Your task to perform on an android device: Search for vegetarian restaurants on Maps Image 0: 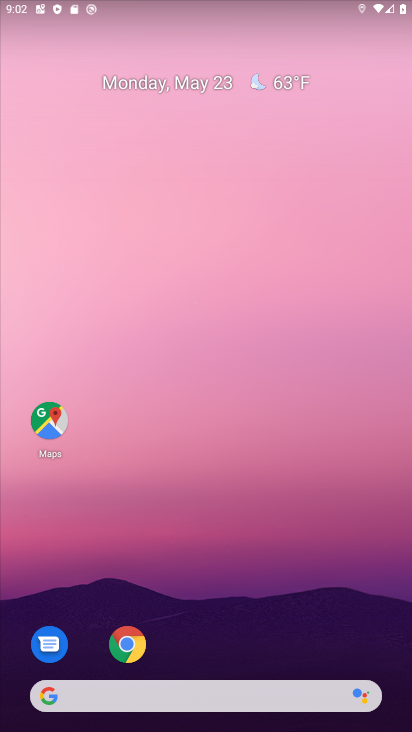
Step 0: click (53, 420)
Your task to perform on an android device: Search for vegetarian restaurants on Maps Image 1: 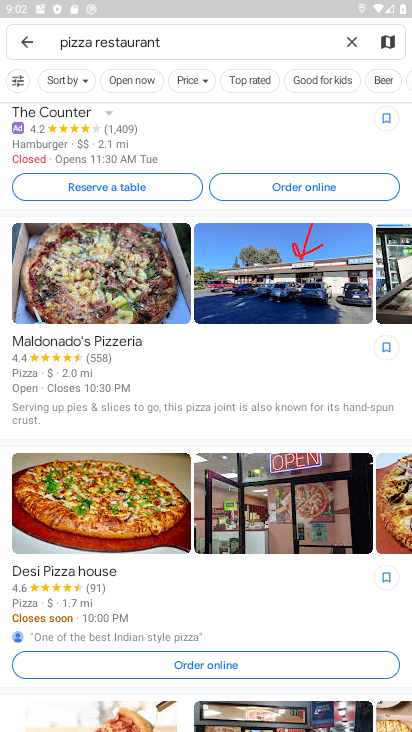
Step 1: click (348, 44)
Your task to perform on an android device: Search for vegetarian restaurants on Maps Image 2: 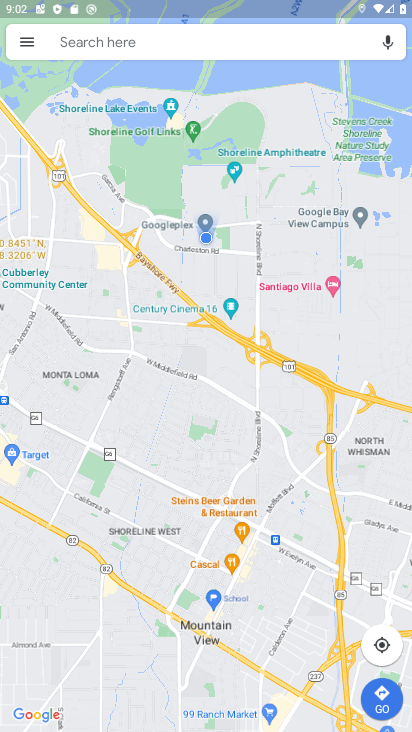
Step 2: click (86, 42)
Your task to perform on an android device: Search for vegetarian restaurants on Maps Image 3: 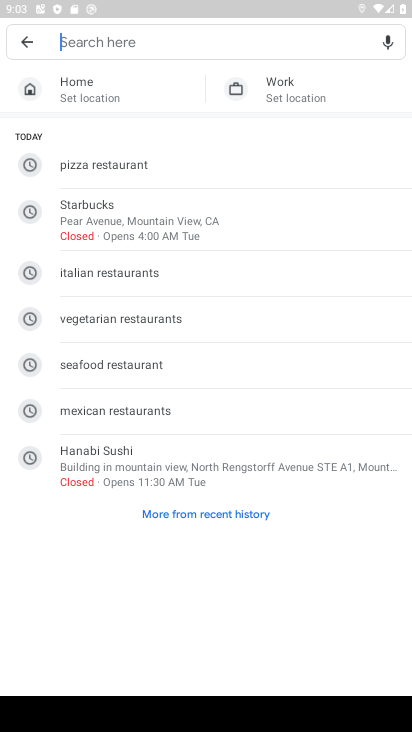
Step 3: click (112, 314)
Your task to perform on an android device: Search for vegetarian restaurants on Maps Image 4: 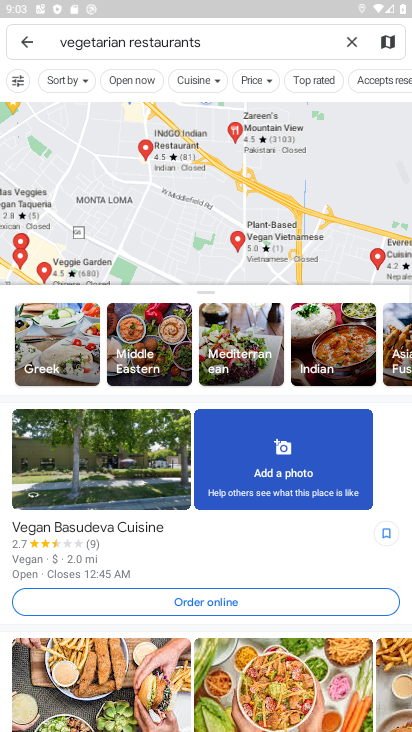
Step 4: task complete